Your task to perform on an android device: Go to battery settings Image 0: 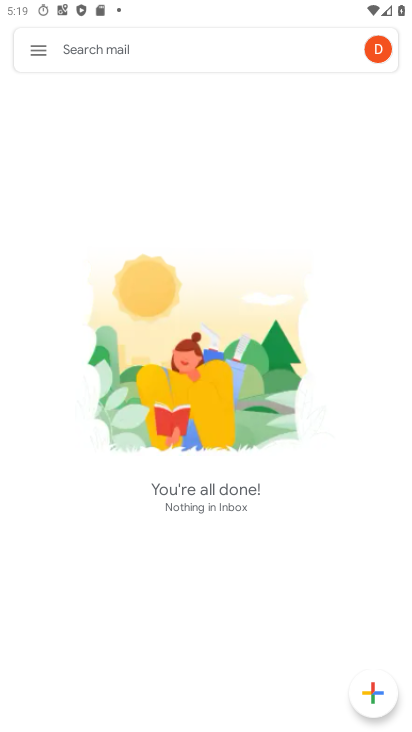
Step 0: press home button
Your task to perform on an android device: Go to battery settings Image 1: 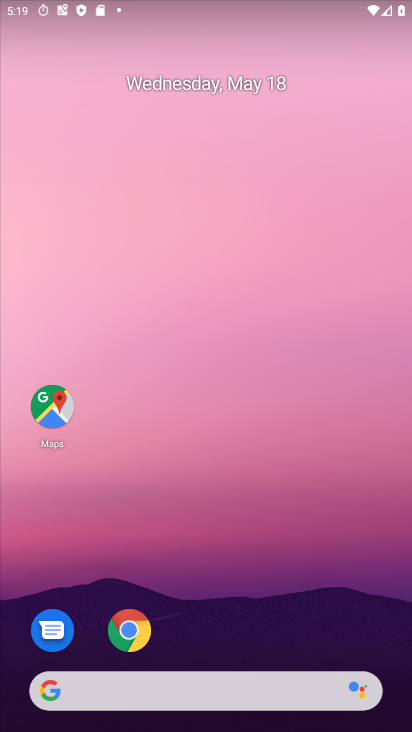
Step 1: drag from (182, 647) to (218, 243)
Your task to perform on an android device: Go to battery settings Image 2: 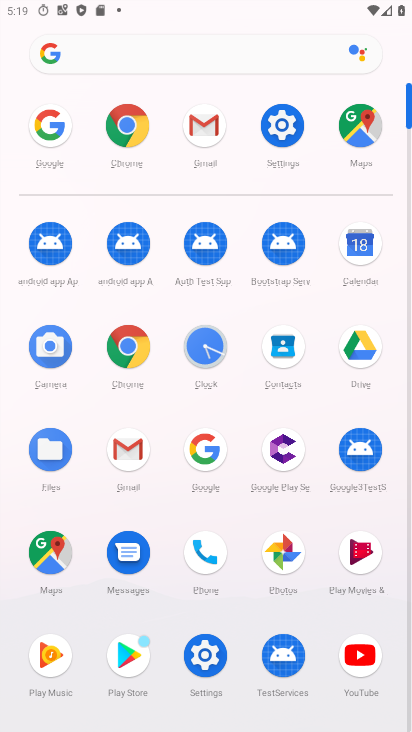
Step 2: click (279, 126)
Your task to perform on an android device: Go to battery settings Image 3: 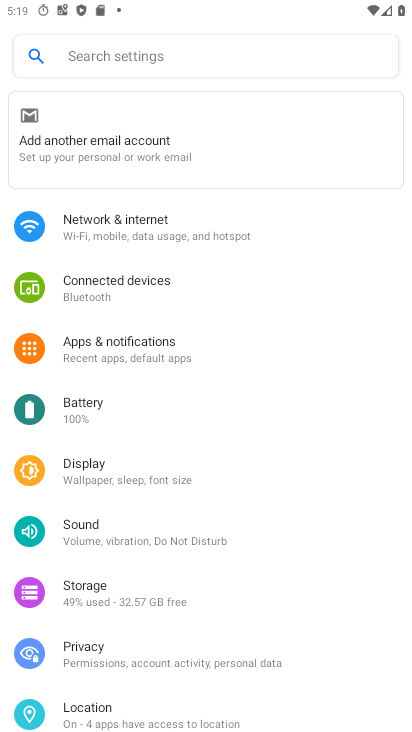
Step 3: click (87, 410)
Your task to perform on an android device: Go to battery settings Image 4: 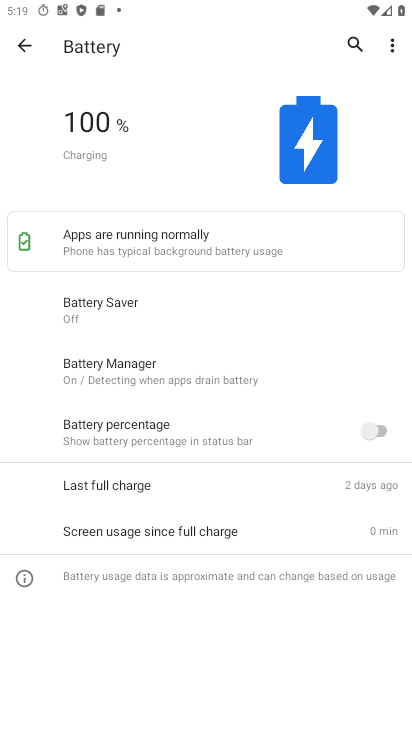
Step 4: click (393, 47)
Your task to perform on an android device: Go to battery settings Image 5: 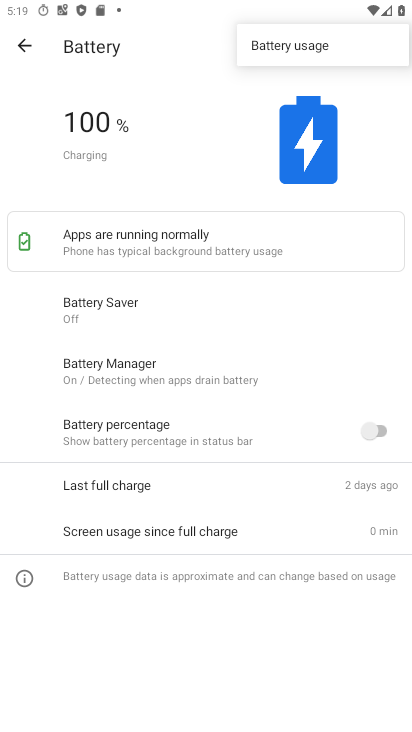
Step 5: click (336, 44)
Your task to perform on an android device: Go to battery settings Image 6: 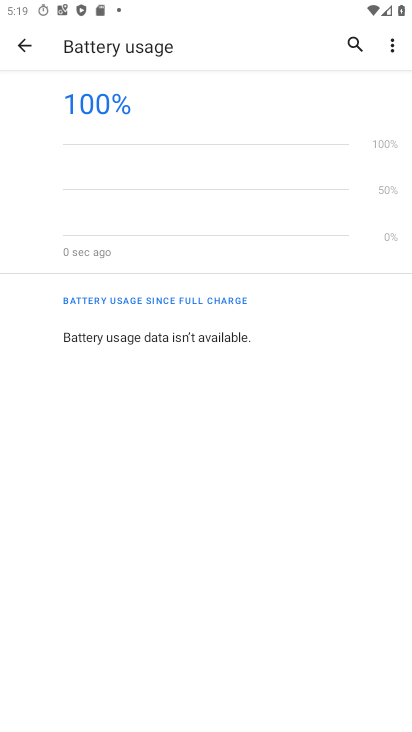
Step 6: task complete